Your task to perform on an android device: change the clock display to show seconds Image 0: 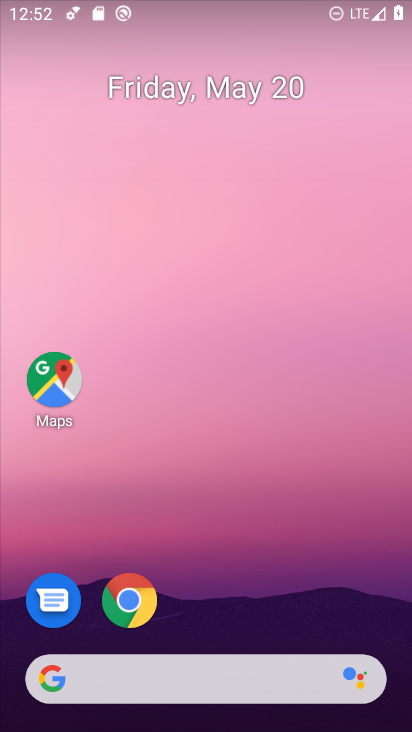
Step 0: drag from (212, 670) to (126, 27)
Your task to perform on an android device: change the clock display to show seconds Image 1: 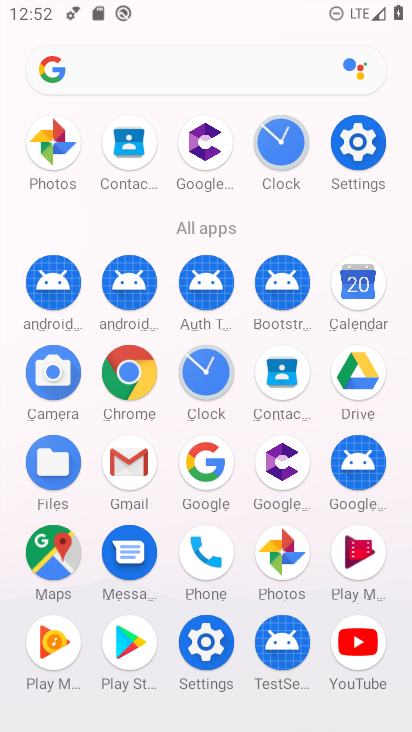
Step 1: click (199, 378)
Your task to perform on an android device: change the clock display to show seconds Image 2: 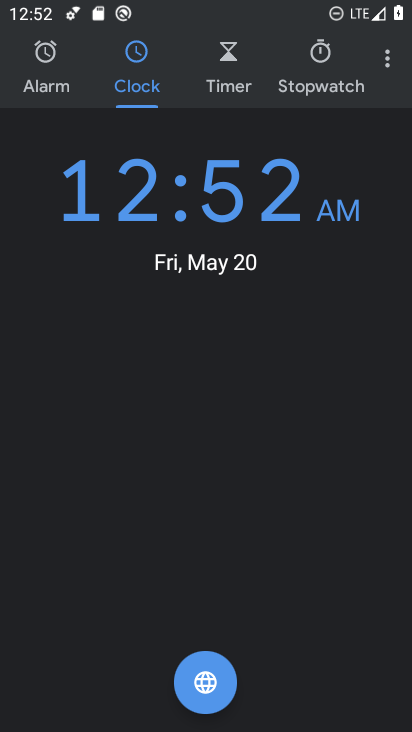
Step 2: click (378, 53)
Your task to perform on an android device: change the clock display to show seconds Image 3: 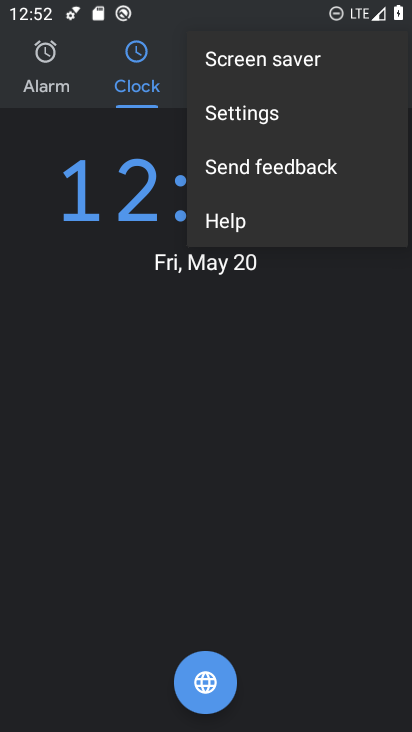
Step 3: click (253, 134)
Your task to perform on an android device: change the clock display to show seconds Image 4: 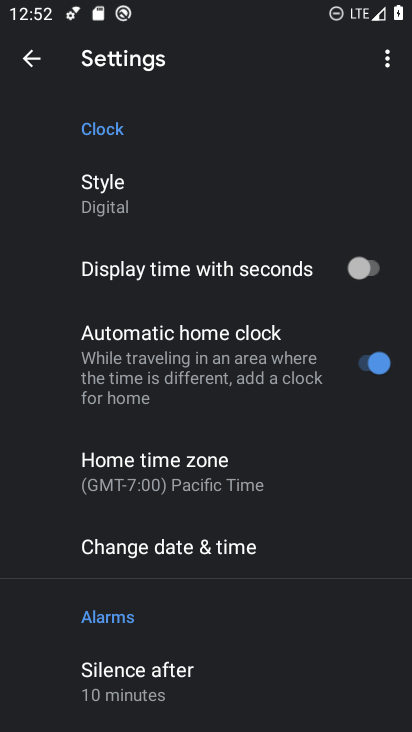
Step 4: click (350, 274)
Your task to perform on an android device: change the clock display to show seconds Image 5: 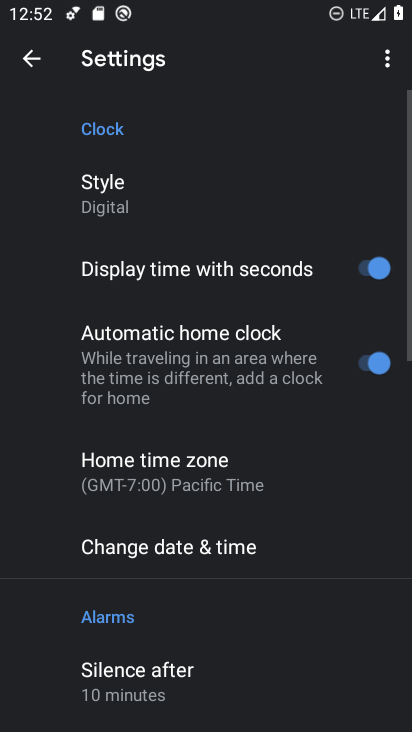
Step 5: task complete